Your task to perform on an android device: turn on improve location accuracy Image 0: 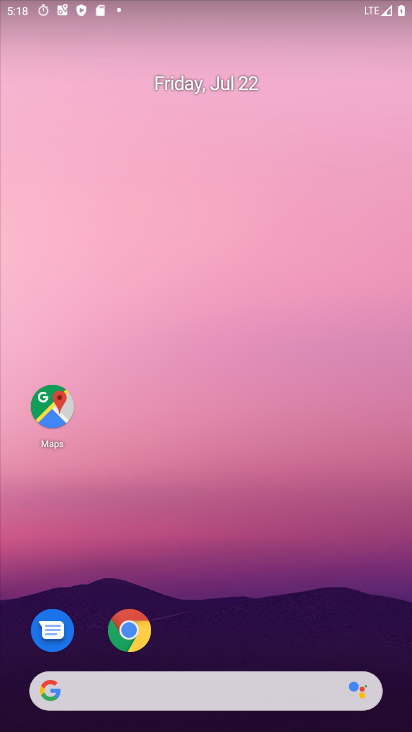
Step 0: drag from (115, 657) to (162, 0)
Your task to perform on an android device: turn on improve location accuracy Image 1: 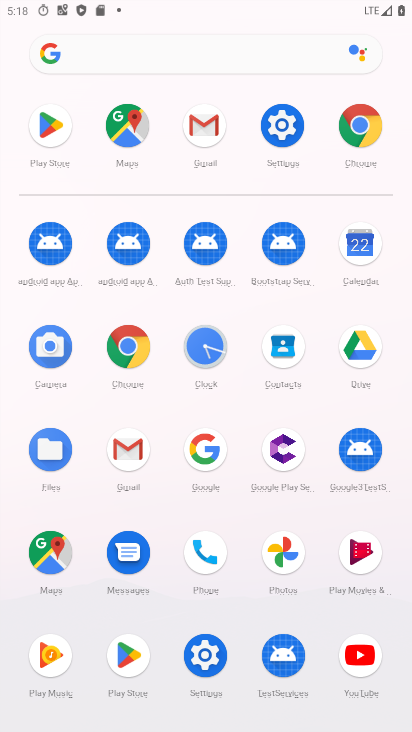
Step 1: click (298, 126)
Your task to perform on an android device: turn on improve location accuracy Image 2: 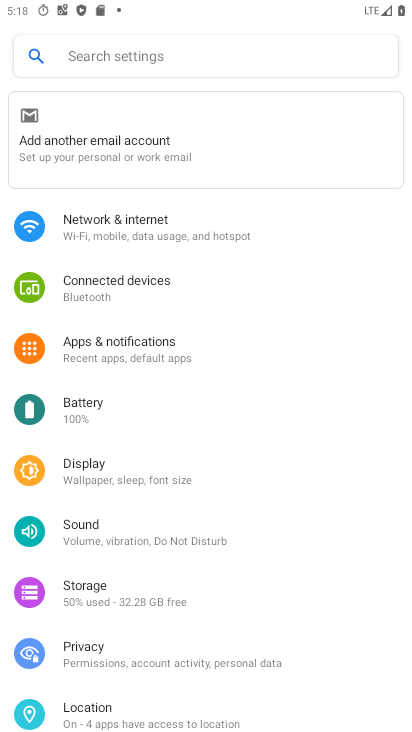
Step 2: drag from (98, 688) to (118, 314)
Your task to perform on an android device: turn on improve location accuracy Image 3: 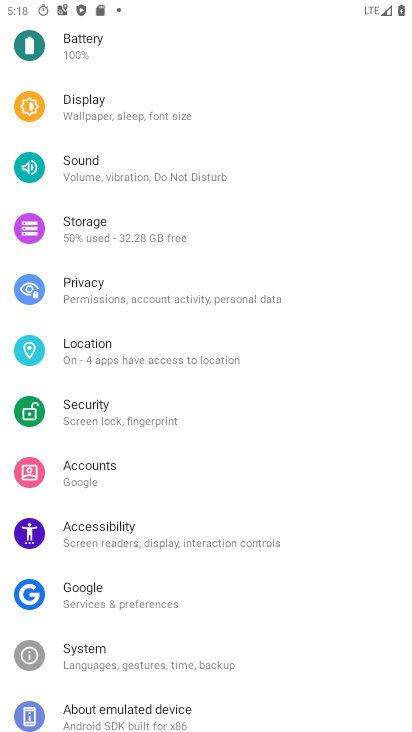
Step 3: click (113, 353)
Your task to perform on an android device: turn on improve location accuracy Image 4: 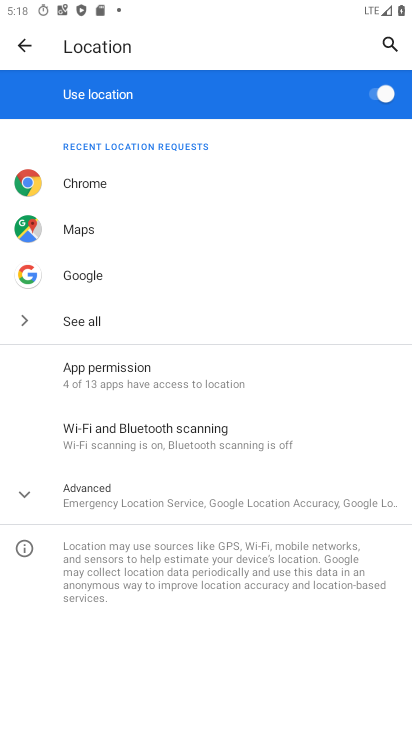
Step 4: click (199, 494)
Your task to perform on an android device: turn on improve location accuracy Image 5: 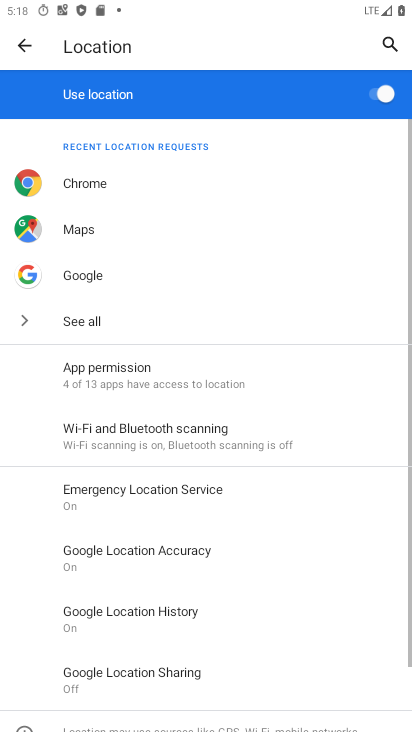
Step 5: click (184, 543)
Your task to perform on an android device: turn on improve location accuracy Image 6: 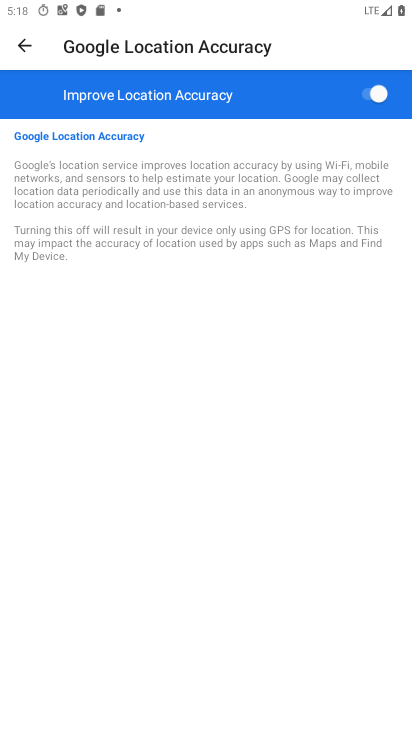
Step 6: task complete